Your task to perform on an android device: Check the news Image 0: 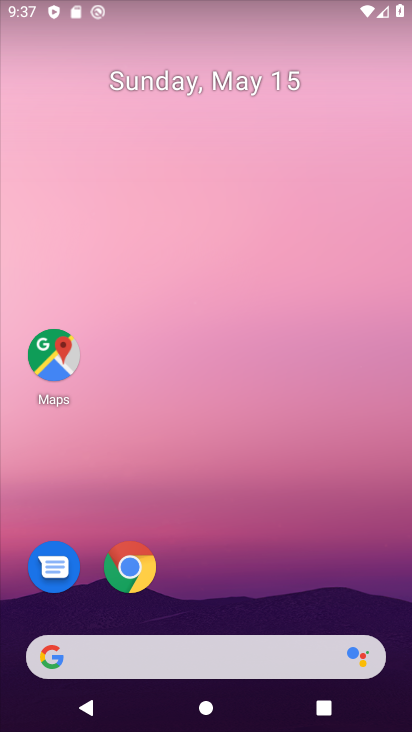
Step 0: drag from (221, 557) to (221, 154)
Your task to perform on an android device: Check the news Image 1: 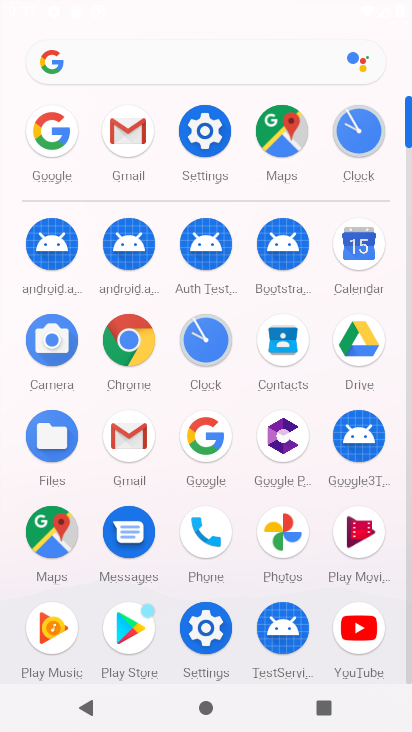
Step 1: click (214, 439)
Your task to perform on an android device: Check the news Image 2: 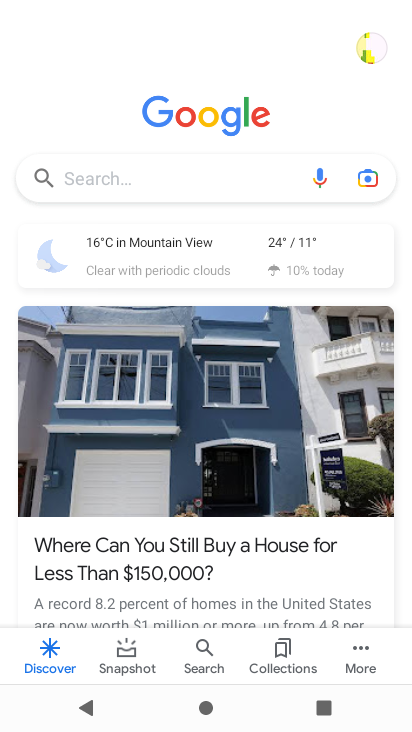
Step 2: click (178, 156)
Your task to perform on an android device: Check the news Image 3: 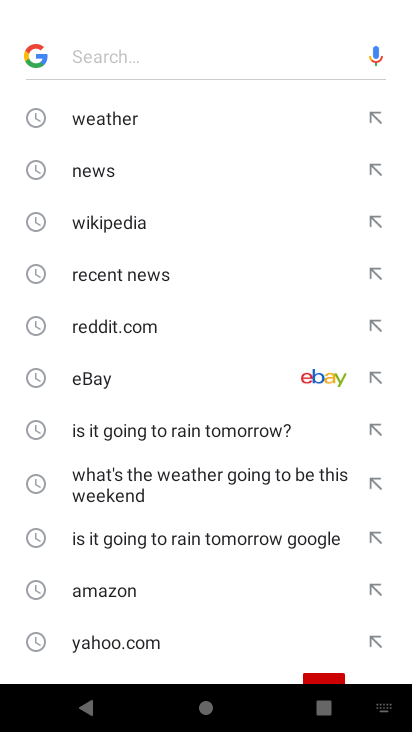
Step 3: click (118, 173)
Your task to perform on an android device: Check the news Image 4: 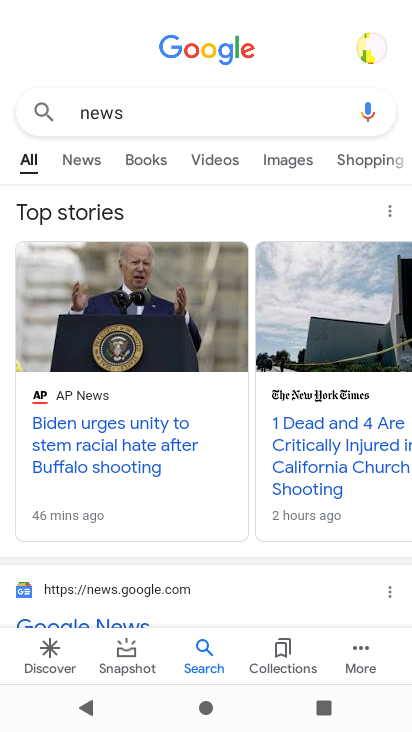
Step 4: task complete